Your task to perform on an android device: Search for pizza restaurants on Maps Image 0: 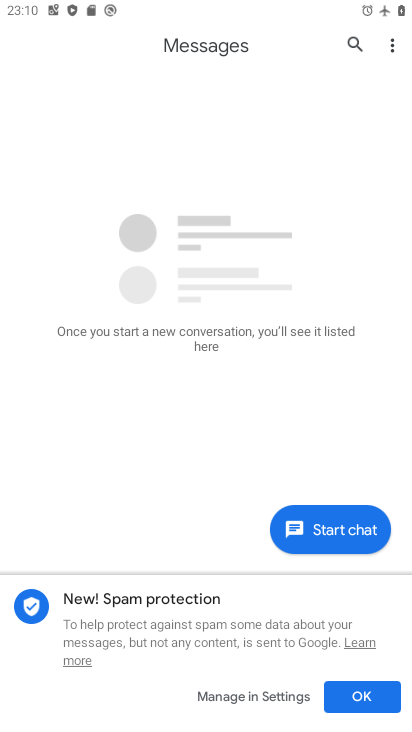
Step 0: press home button
Your task to perform on an android device: Search for pizza restaurants on Maps Image 1: 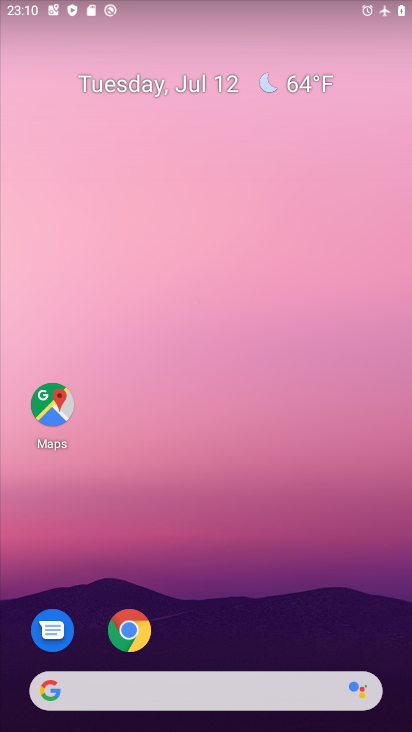
Step 1: drag from (216, 642) to (216, 70)
Your task to perform on an android device: Search for pizza restaurants on Maps Image 2: 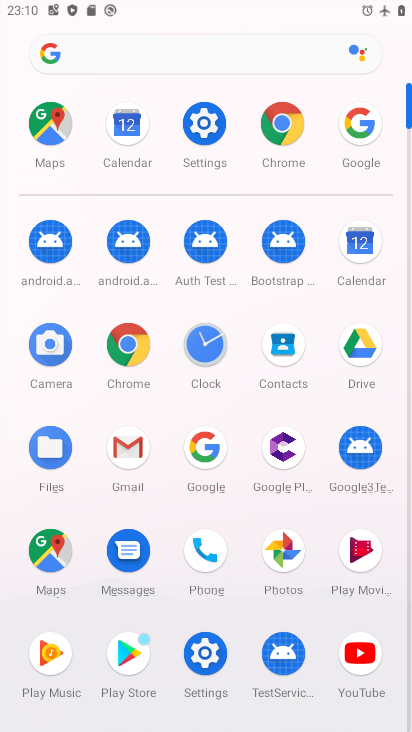
Step 2: click (59, 160)
Your task to perform on an android device: Search for pizza restaurants on Maps Image 3: 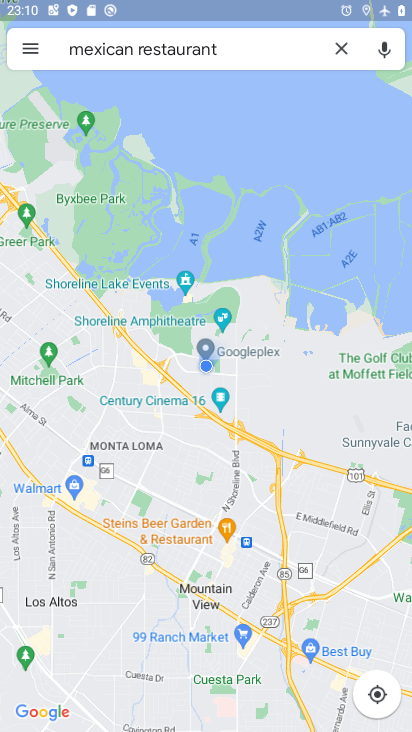
Step 3: click (338, 49)
Your task to perform on an android device: Search for pizza restaurants on Maps Image 4: 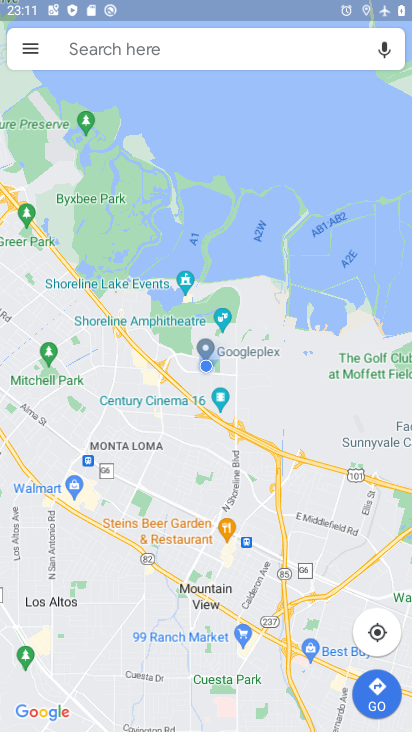
Step 4: click (148, 64)
Your task to perform on an android device: Search for pizza restaurants on Maps Image 5: 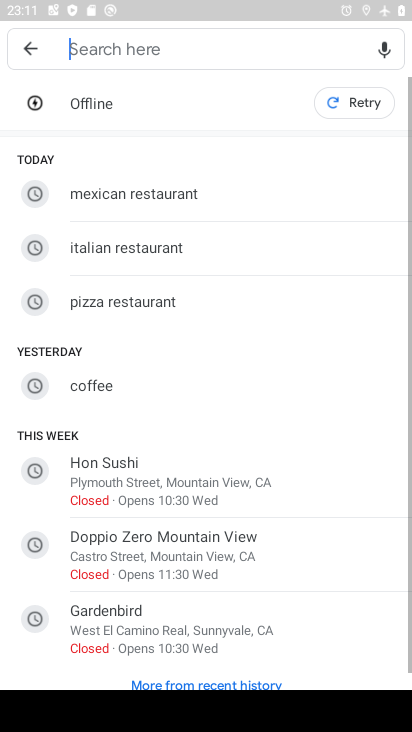
Step 5: click (78, 291)
Your task to perform on an android device: Search for pizza restaurants on Maps Image 6: 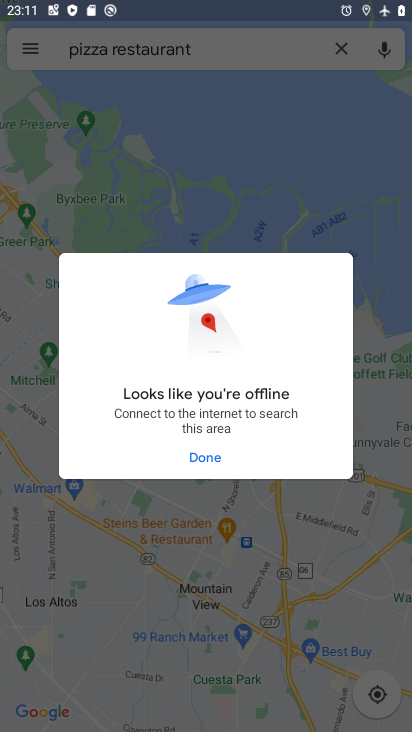
Step 6: task complete